Your task to perform on an android device: Go to network settings Image 0: 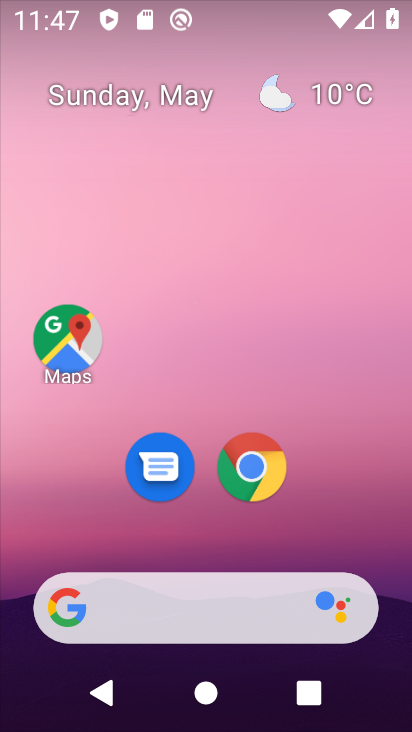
Step 0: drag from (345, 517) to (323, 129)
Your task to perform on an android device: Go to network settings Image 1: 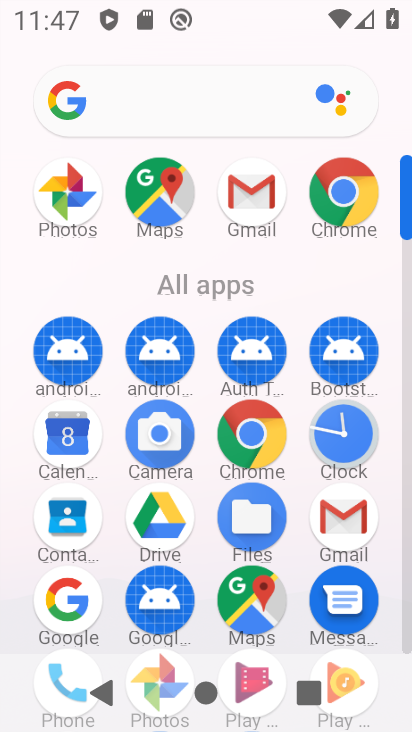
Step 1: drag from (244, 529) to (275, 192)
Your task to perform on an android device: Go to network settings Image 2: 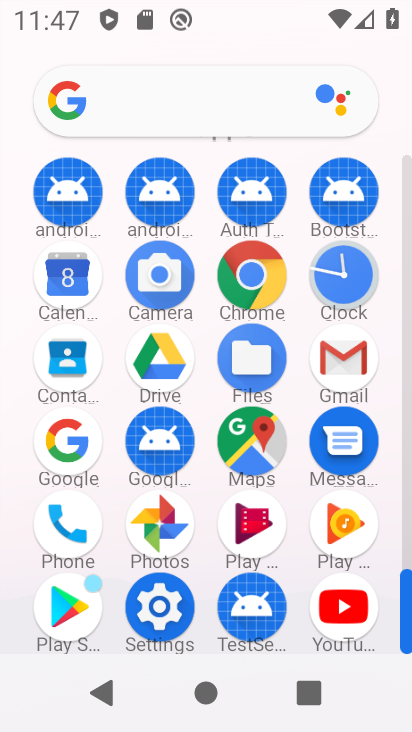
Step 2: click (149, 613)
Your task to perform on an android device: Go to network settings Image 3: 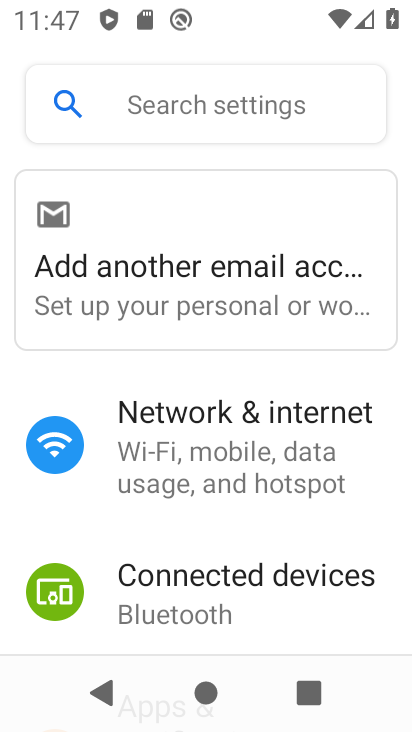
Step 3: click (250, 411)
Your task to perform on an android device: Go to network settings Image 4: 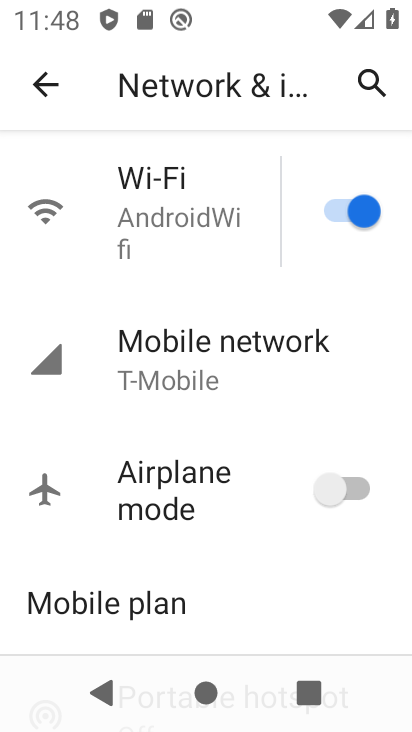
Step 4: drag from (227, 560) to (226, 339)
Your task to perform on an android device: Go to network settings Image 5: 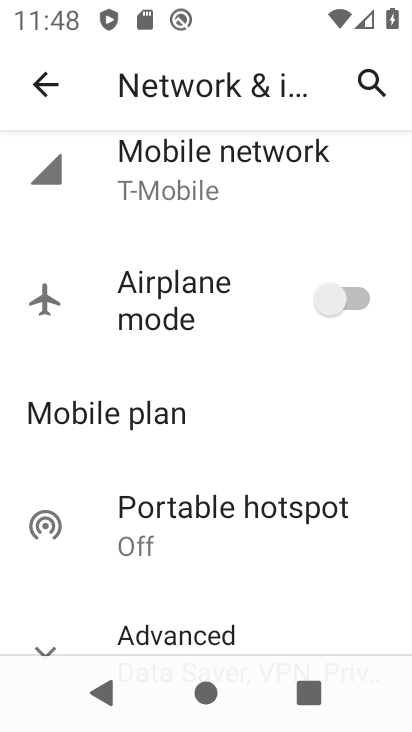
Step 5: click (185, 169)
Your task to perform on an android device: Go to network settings Image 6: 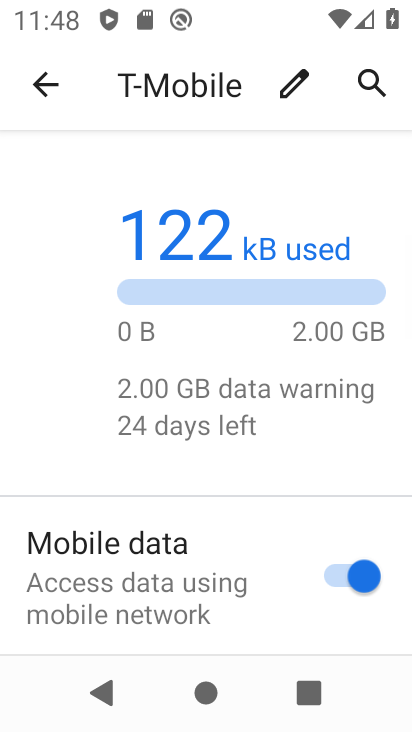
Step 6: task complete